Your task to perform on an android device: What's the weather going to be tomorrow? Image 0: 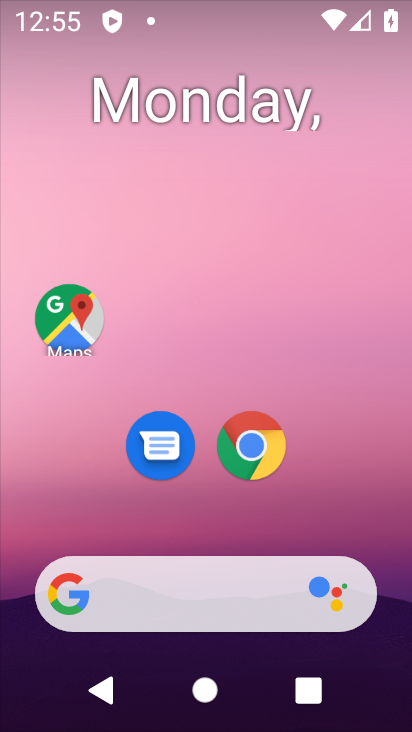
Step 0: drag from (397, 563) to (377, 369)
Your task to perform on an android device: What's the weather going to be tomorrow? Image 1: 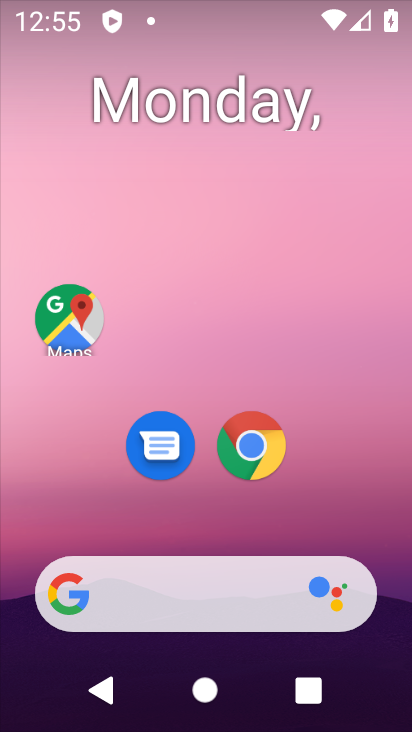
Step 1: click (178, 603)
Your task to perform on an android device: What's the weather going to be tomorrow? Image 2: 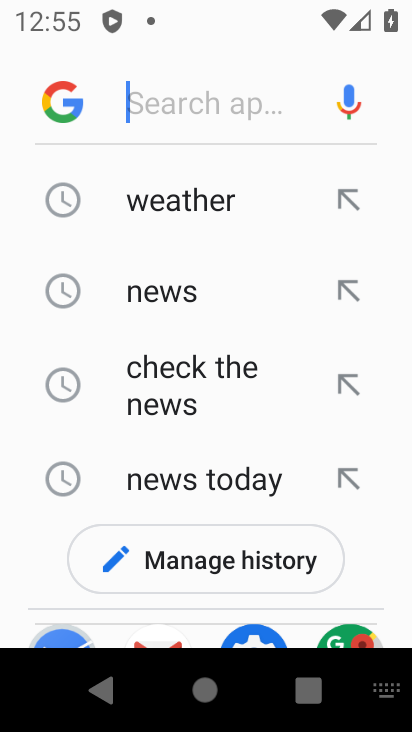
Step 2: click (173, 199)
Your task to perform on an android device: What's the weather going to be tomorrow? Image 3: 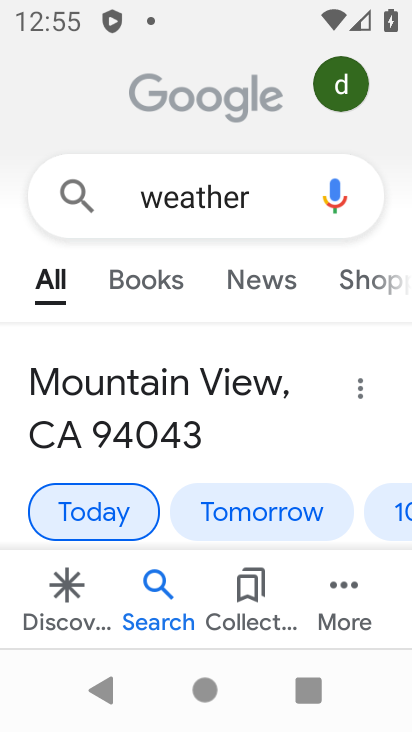
Step 3: drag from (191, 372) to (179, 92)
Your task to perform on an android device: What's the weather going to be tomorrow? Image 4: 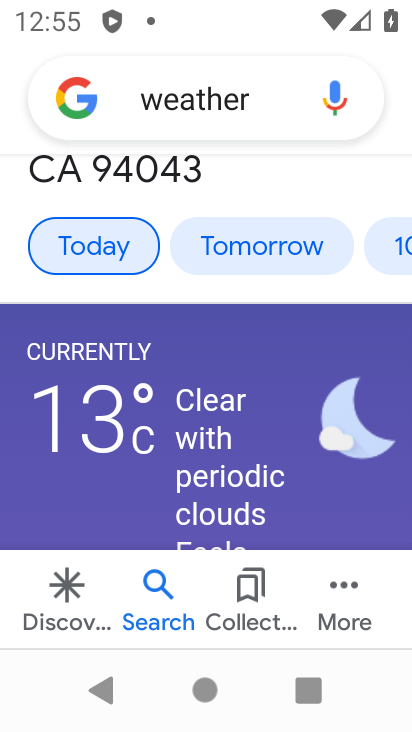
Step 4: click (239, 225)
Your task to perform on an android device: What's the weather going to be tomorrow? Image 5: 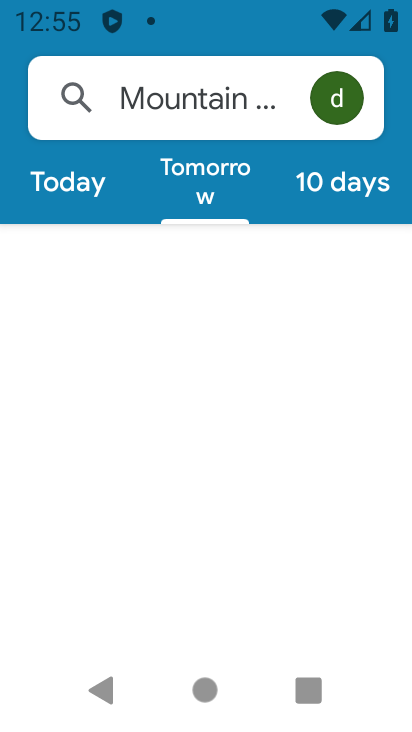
Step 5: task complete